Your task to perform on an android device: Open privacy settings Image 0: 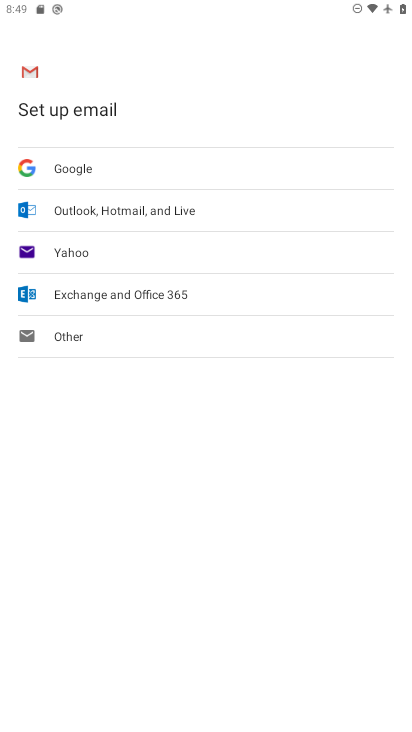
Step 0: press home button
Your task to perform on an android device: Open privacy settings Image 1: 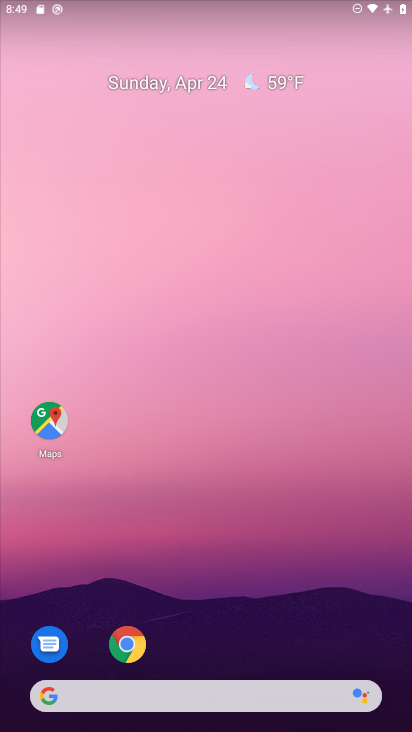
Step 1: drag from (219, 655) to (283, 62)
Your task to perform on an android device: Open privacy settings Image 2: 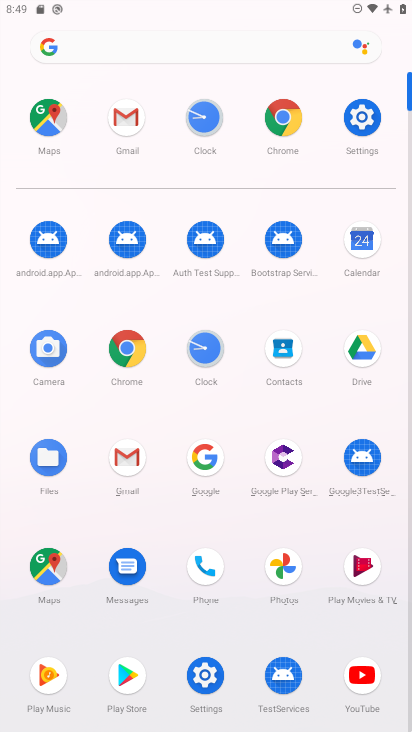
Step 2: click (363, 116)
Your task to perform on an android device: Open privacy settings Image 3: 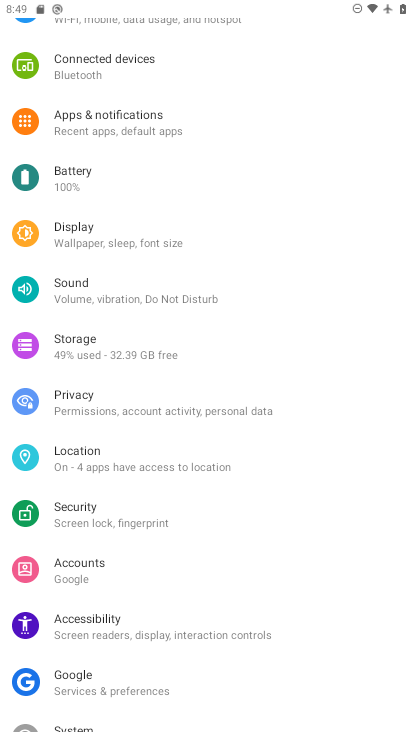
Step 3: click (100, 396)
Your task to perform on an android device: Open privacy settings Image 4: 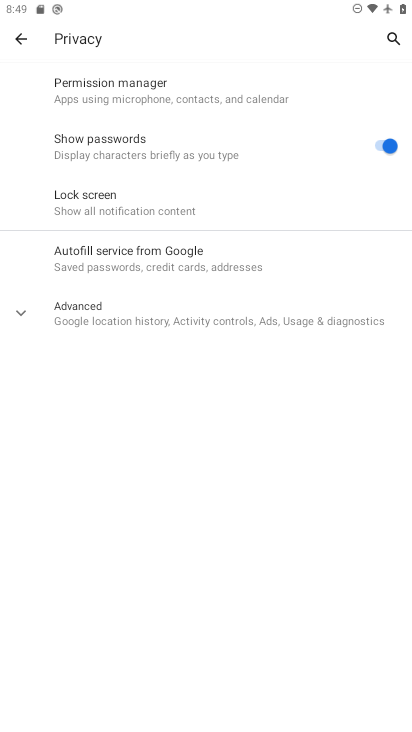
Step 4: click (26, 308)
Your task to perform on an android device: Open privacy settings Image 5: 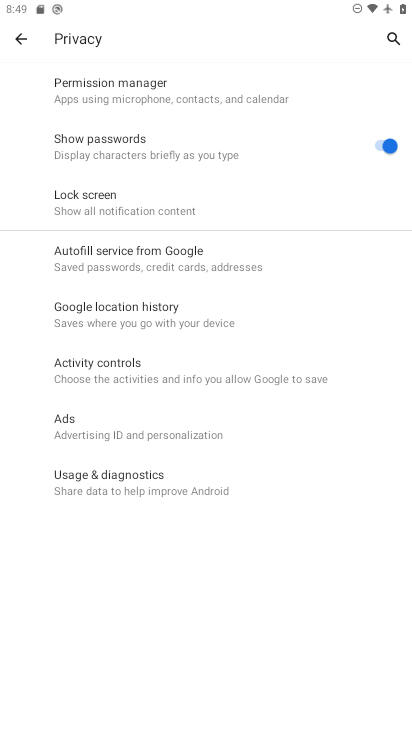
Step 5: task complete